Your task to perform on an android device: turn on wifi Image 0: 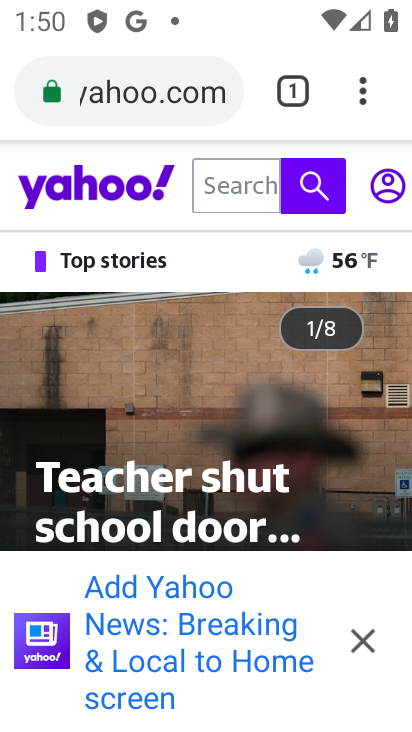
Step 0: drag from (344, 16) to (199, 495)
Your task to perform on an android device: turn on wifi Image 1: 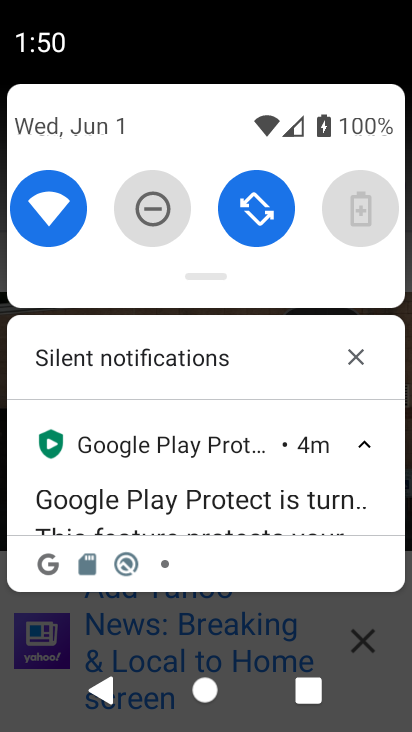
Step 1: click (66, 221)
Your task to perform on an android device: turn on wifi Image 2: 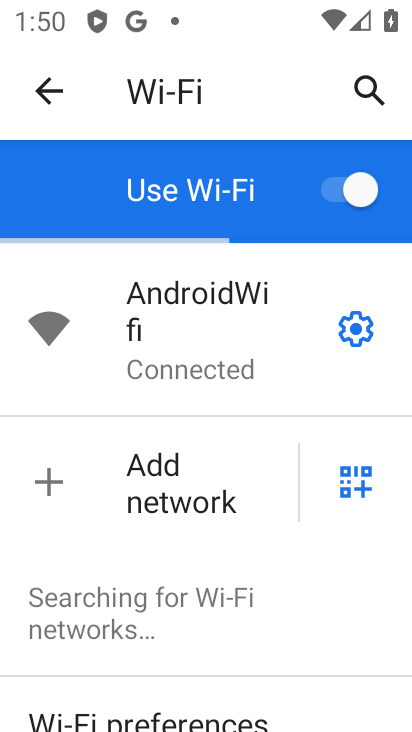
Step 2: task complete